Your task to perform on an android device: Open location settings Image 0: 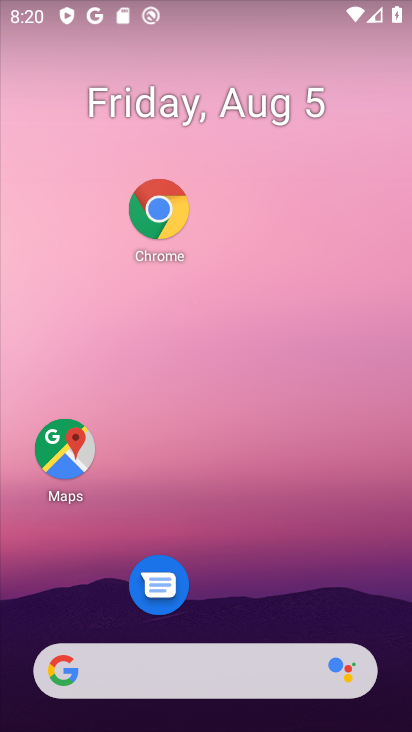
Step 0: drag from (256, 605) to (177, 96)
Your task to perform on an android device: Open location settings Image 1: 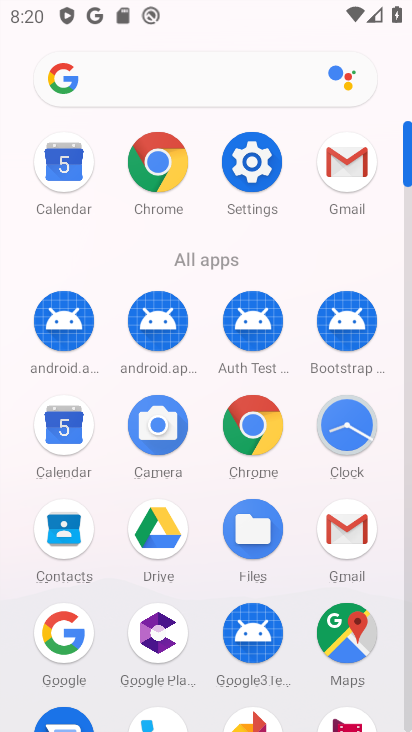
Step 1: click (242, 171)
Your task to perform on an android device: Open location settings Image 2: 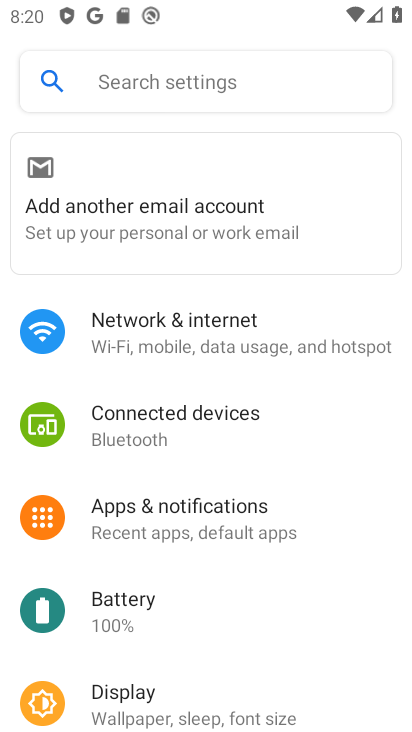
Step 2: drag from (345, 596) to (301, 3)
Your task to perform on an android device: Open location settings Image 3: 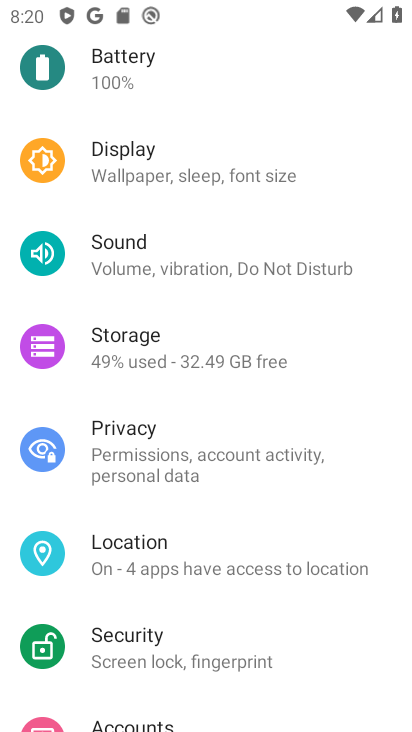
Step 3: click (143, 554)
Your task to perform on an android device: Open location settings Image 4: 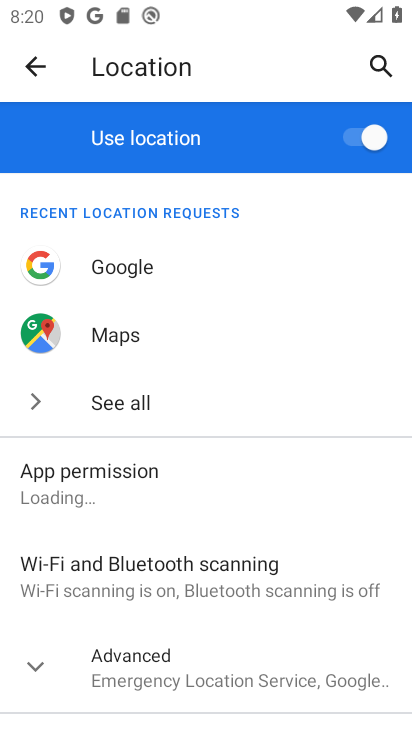
Step 4: click (139, 666)
Your task to perform on an android device: Open location settings Image 5: 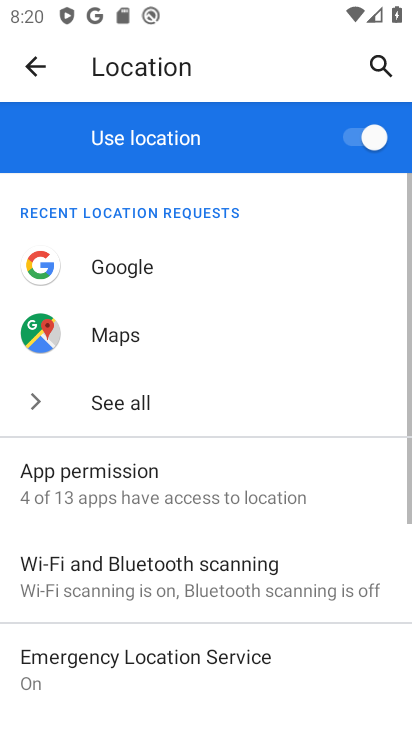
Step 5: task complete